Your task to perform on an android device: delete location history Image 0: 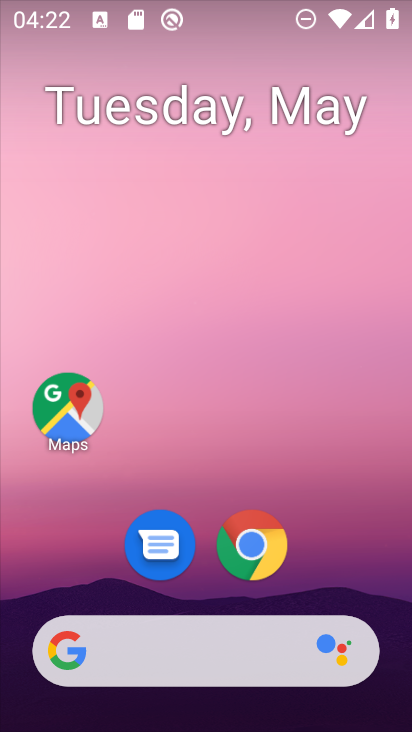
Step 0: click (71, 413)
Your task to perform on an android device: delete location history Image 1: 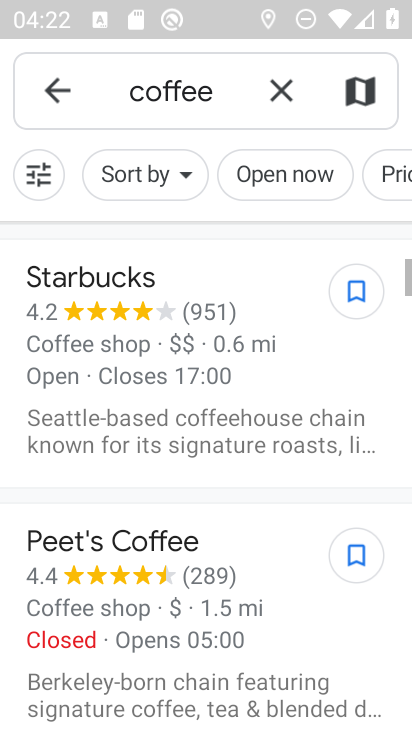
Step 1: click (281, 90)
Your task to perform on an android device: delete location history Image 2: 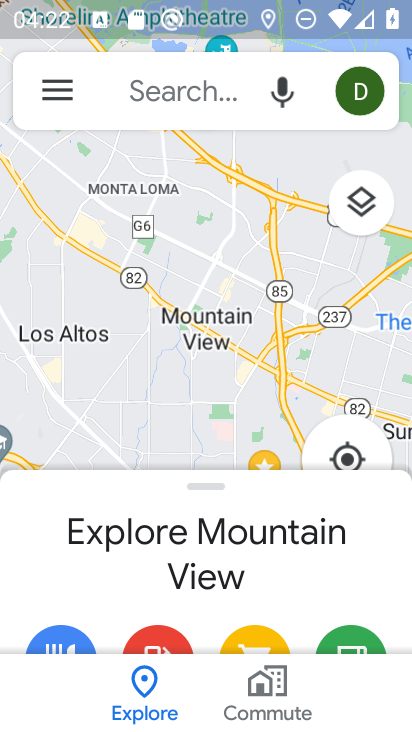
Step 2: click (60, 89)
Your task to perform on an android device: delete location history Image 3: 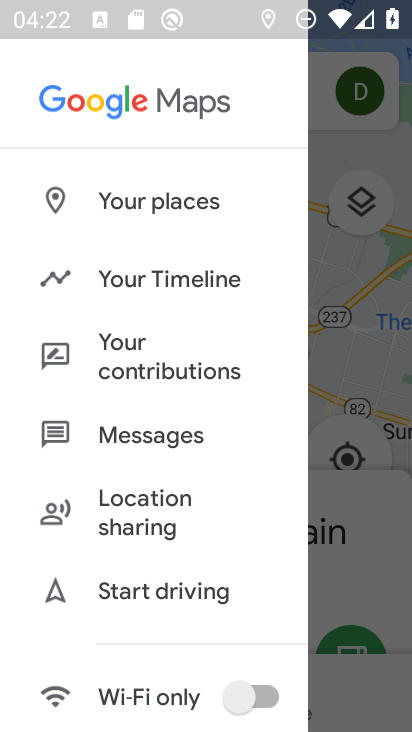
Step 3: drag from (226, 636) to (246, 244)
Your task to perform on an android device: delete location history Image 4: 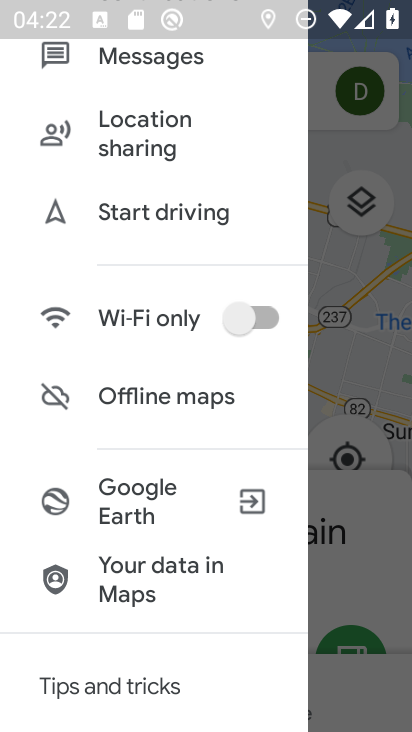
Step 4: drag from (229, 663) to (239, 188)
Your task to perform on an android device: delete location history Image 5: 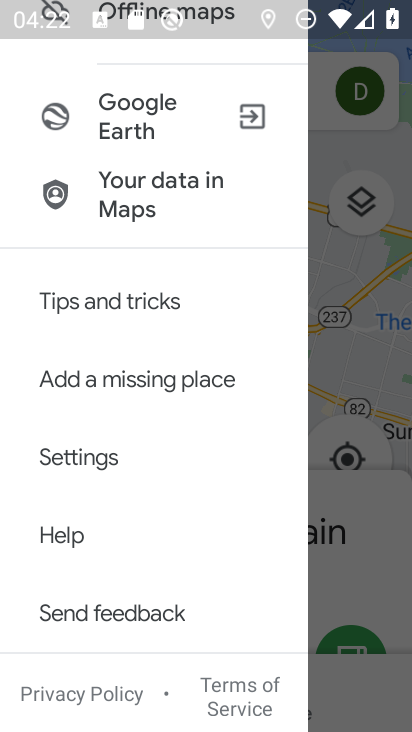
Step 5: click (52, 456)
Your task to perform on an android device: delete location history Image 6: 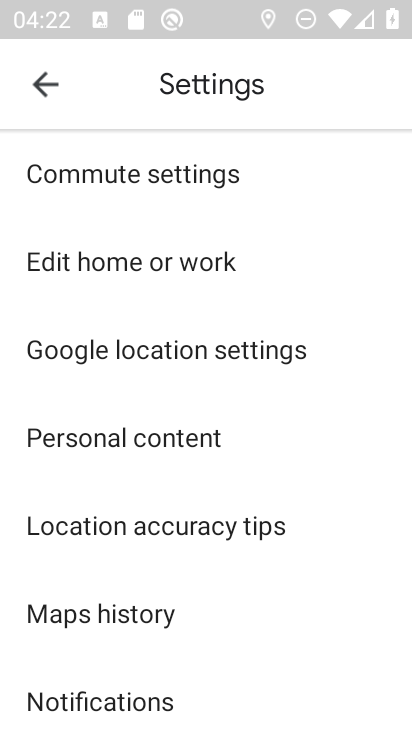
Step 6: click (123, 438)
Your task to perform on an android device: delete location history Image 7: 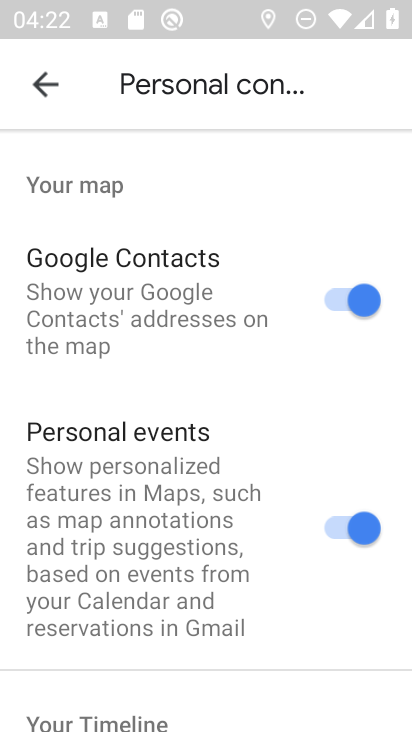
Step 7: drag from (282, 707) to (225, 150)
Your task to perform on an android device: delete location history Image 8: 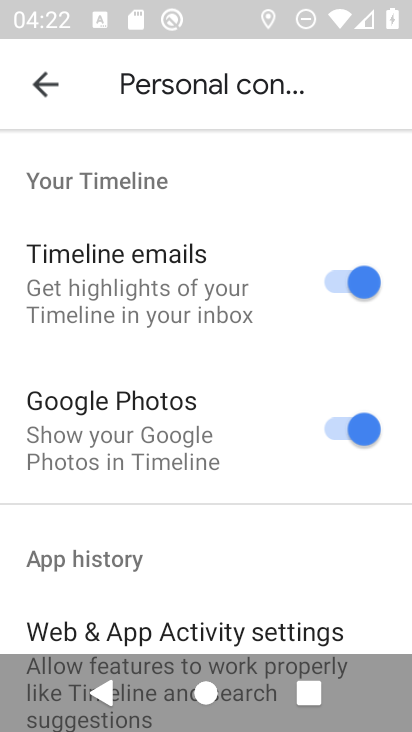
Step 8: drag from (233, 600) to (270, 162)
Your task to perform on an android device: delete location history Image 9: 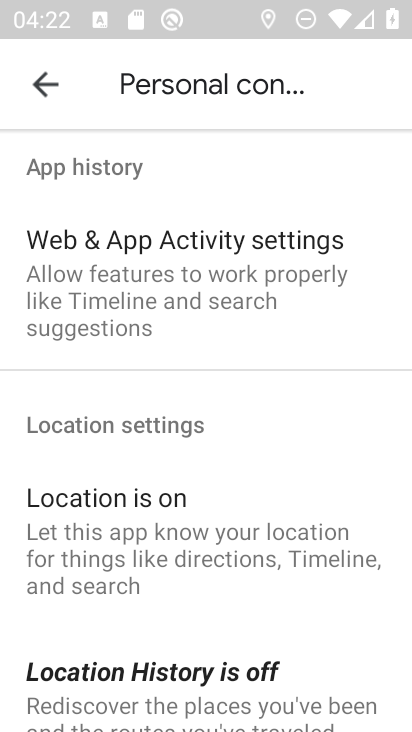
Step 9: drag from (239, 587) to (260, 247)
Your task to perform on an android device: delete location history Image 10: 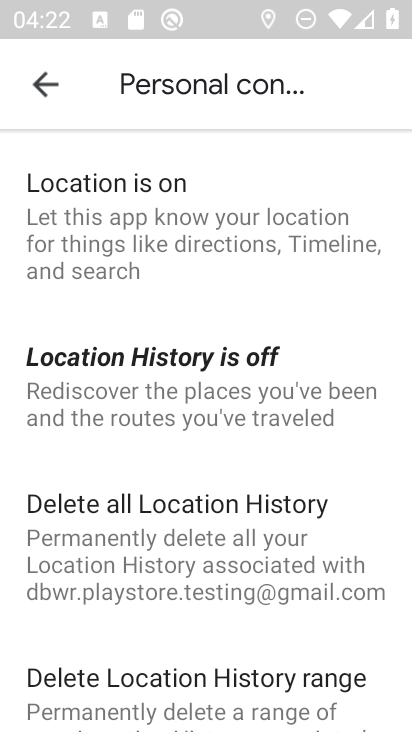
Step 10: click (125, 541)
Your task to perform on an android device: delete location history Image 11: 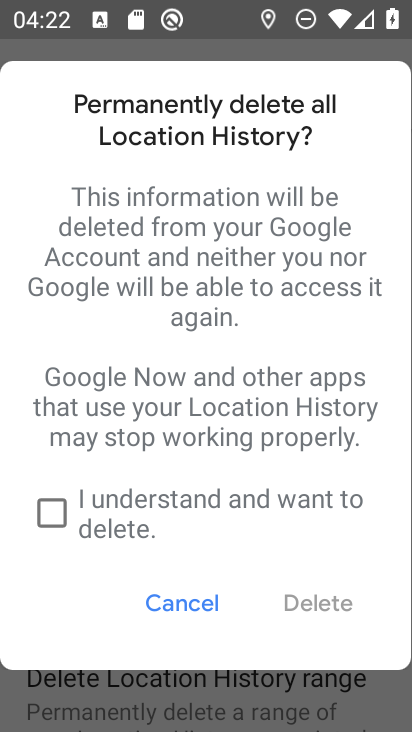
Step 11: click (55, 508)
Your task to perform on an android device: delete location history Image 12: 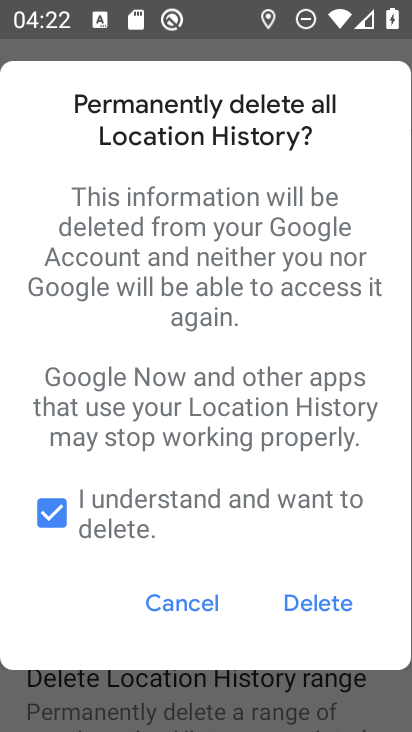
Step 12: click (323, 605)
Your task to perform on an android device: delete location history Image 13: 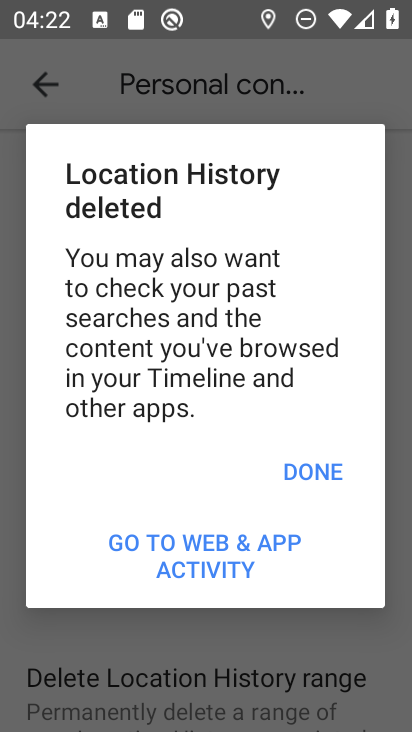
Step 13: click (311, 470)
Your task to perform on an android device: delete location history Image 14: 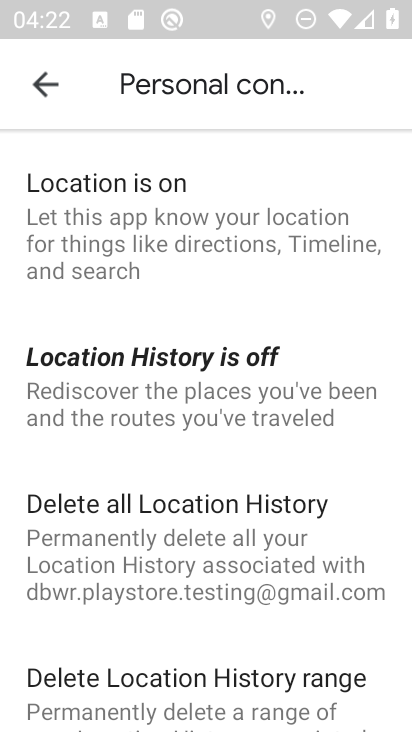
Step 14: task complete